Your task to perform on an android device: Is it going to rain tomorrow? Image 0: 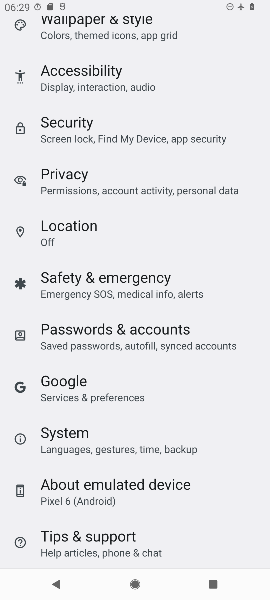
Step 0: press home button
Your task to perform on an android device: Is it going to rain tomorrow? Image 1: 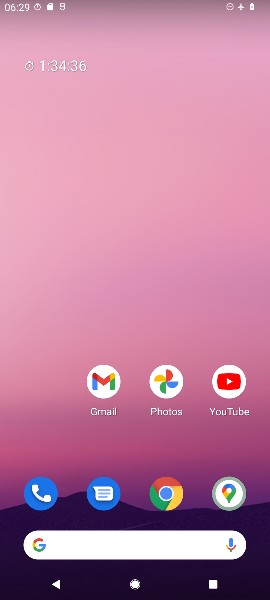
Step 1: click (136, 547)
Your task to perform on an android device: Is it going to rain tomorrow? Image 2: 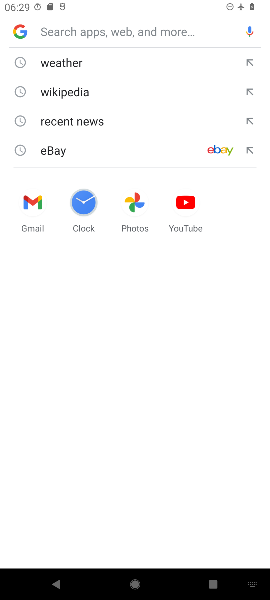
Step 2: click (71, 55)
Your task to perform on an android device: Is it going to rain tomorrow? Image 3: 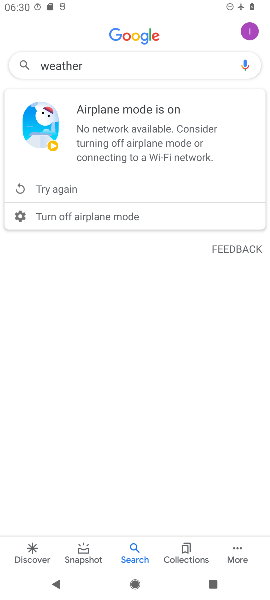
Step 3: task complete